Your task to perform on an android device: Clear the shopping cart on ebay.com. Image 0: 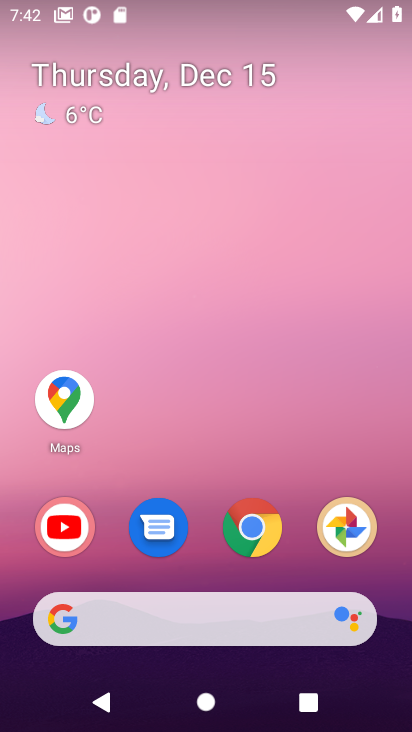
Step 0: click (233, 546)
Your task to perform on an android device: Clear the shopping cart on ebay.com. Image 1: 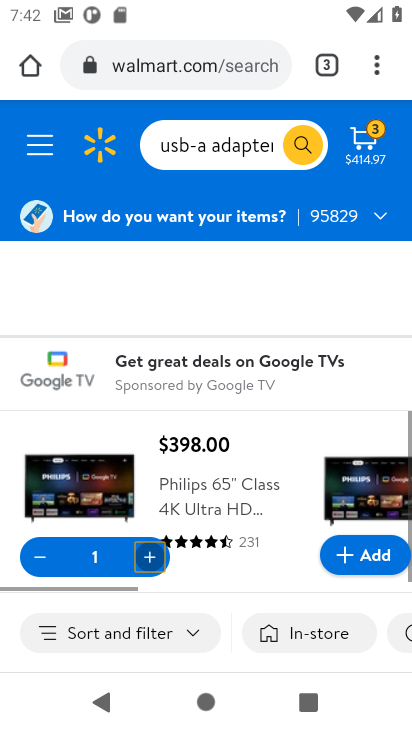
Step 1: click (152, 73)
Your task to perform on an android device: Clear the shopping cart on ebay.com. Image 2: 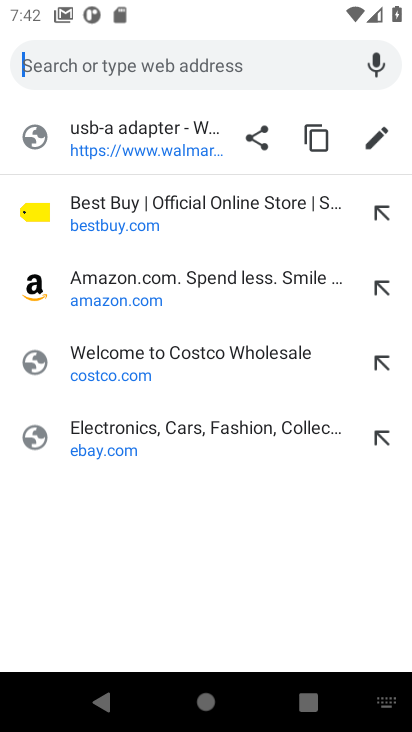
Step 2: type "ebay.com"
Your task to perform on an android device: Clear the shopping cart on ebay.com. Image 3: 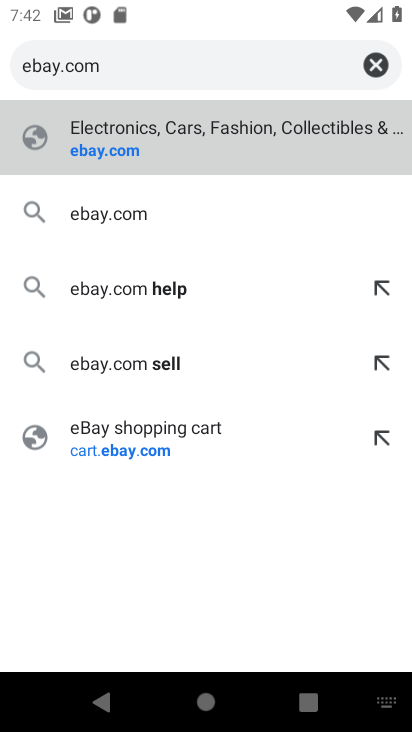
Step 3: click (64, 156)
Your task to perform on an android device: Clear the shopping cart on ebay.com. Image 4: 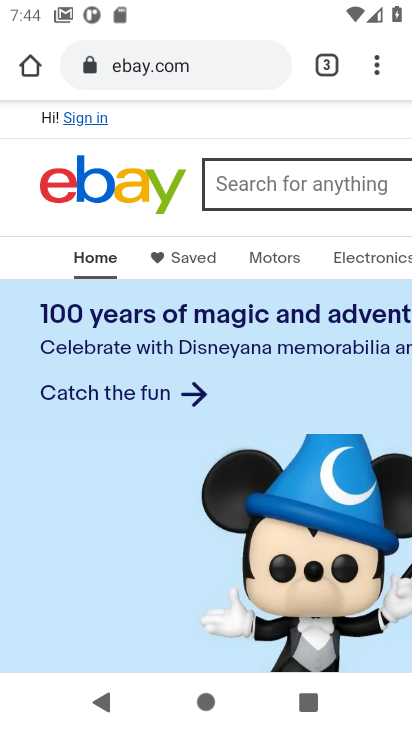
Step 4: task complete